Your task to perform on an android device: check out phone information Image 0: 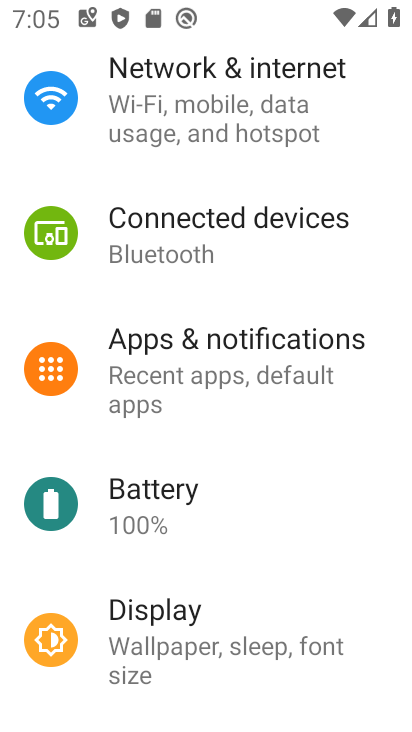
Step 0: drag from (188, 580) to (138, 162)
Your task to perform on an android device: check out phone information Image 1: 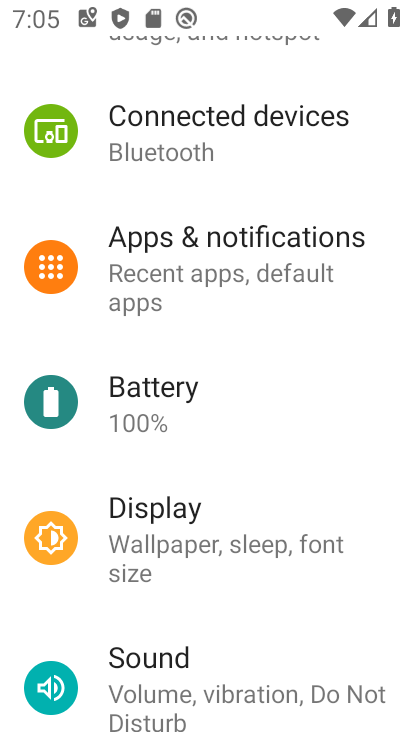
Step 1: drag from (264, 596) to (258, 143)
Your task to perform on an android device: check out phone information Image 2: 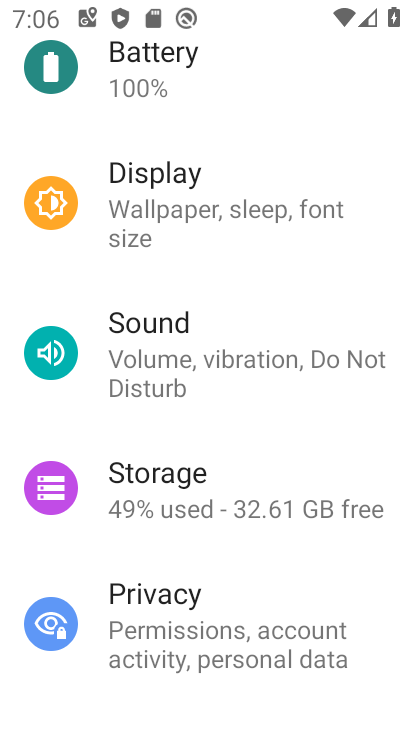
Step 2: drag from (244, 552) to (213, 211)
Your task to perform on an android device: check out phone information Image 3: 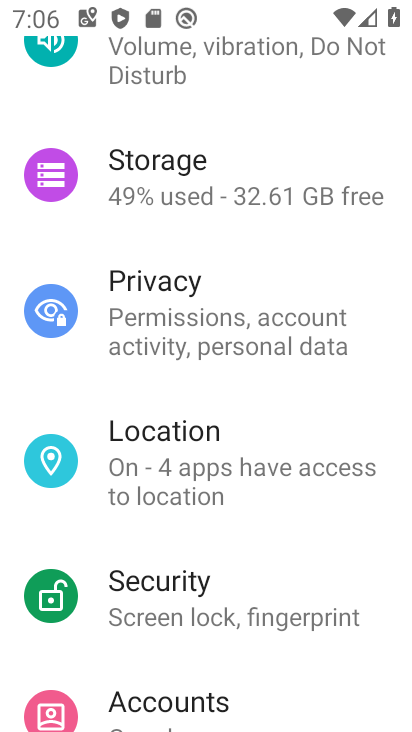
Step 3: drag from (212, 522) to (194, 293)
Your task to perform on an android device: check out phone information Image 4: 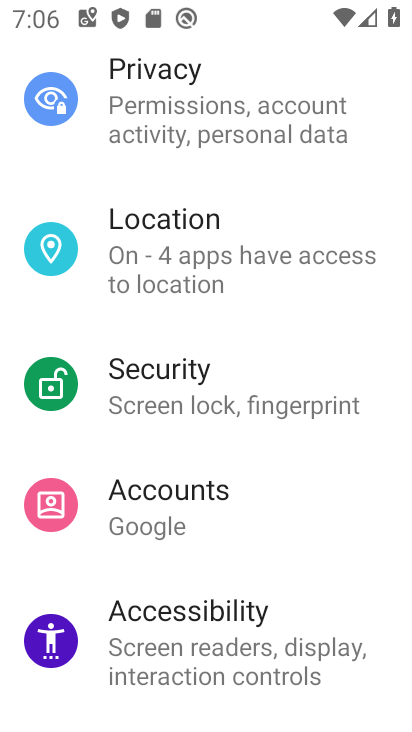
Step 4: drag from (205, 568) to (176, 284)
Your task to perform on an android device: check out phone information Image 5: 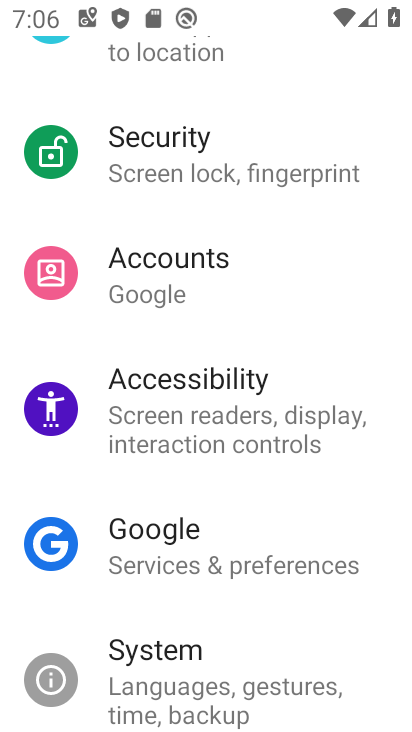
Step 5: drag from (192, 615) to (156, 210)
Your task to perform on an android device: check out phone information Image 6: 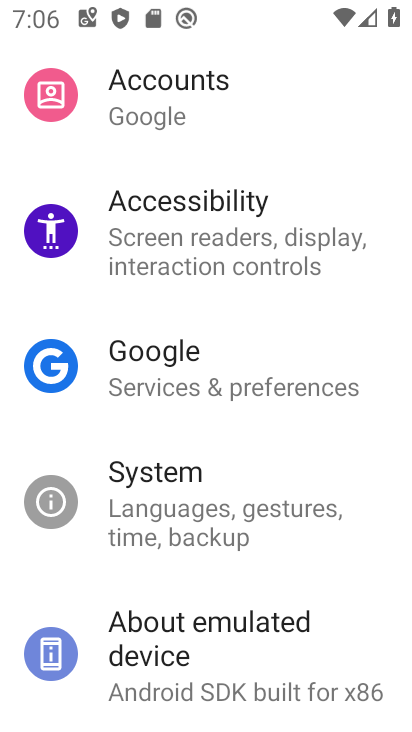
Step 6: click (142, 675)
Your task to perform on an android device: check out phone information Image 7: 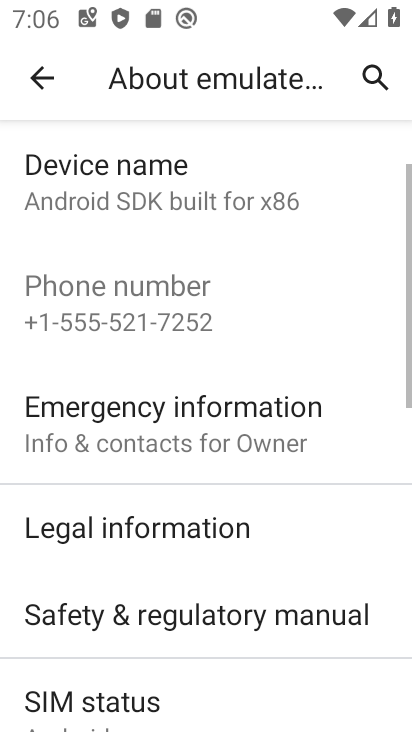
Step 7: task complete